Your task to perform on an android device: Clear the shopping cart on bestbuy.com. Search for panasonic triple a on bestbuy.com, select the first entry, and add it to the cart. Image 0: 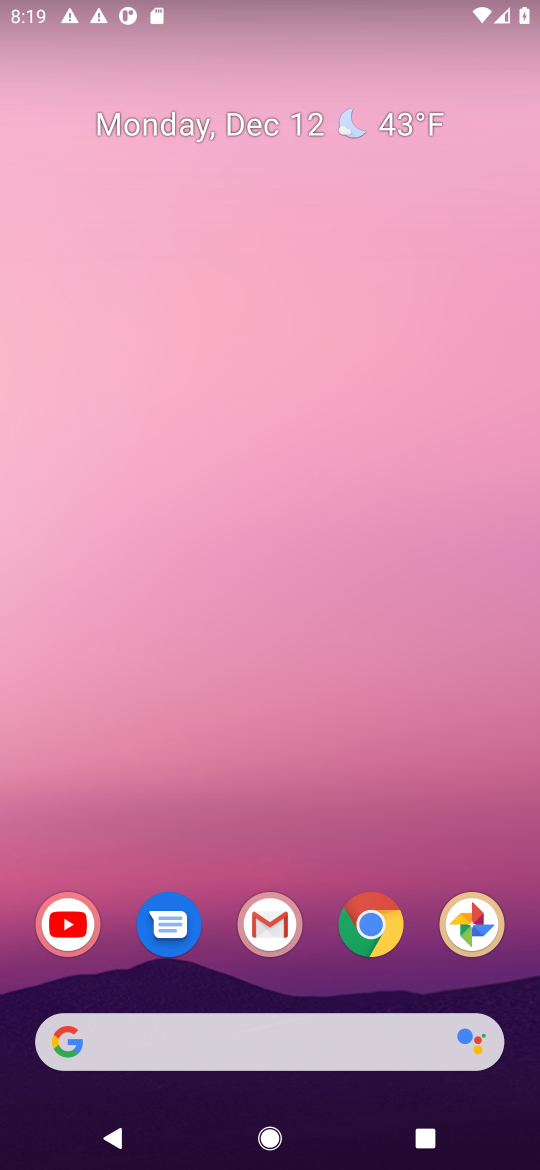
Step 0: drag from (267, 830) to (271, 599)
Your task to perform on an android device: Clear the shopping cart on bestbuy.com. Search for panasonic triple a on bestbuy.com, select the first entry, and add it to the cart. Image 1: 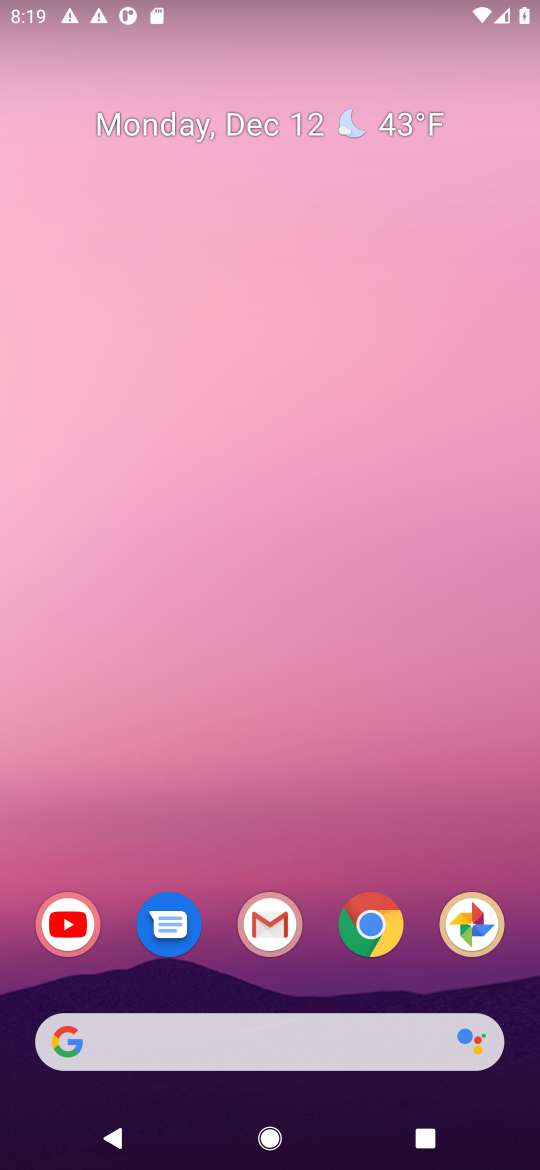
Step 1: click (218, 1028)
Your task to perform on an android device: Clear the shopping cart on bestbuy.com. Search for panasonic triple a on bestbuy.com, select the first entry, and add it to the cart. Image 2: 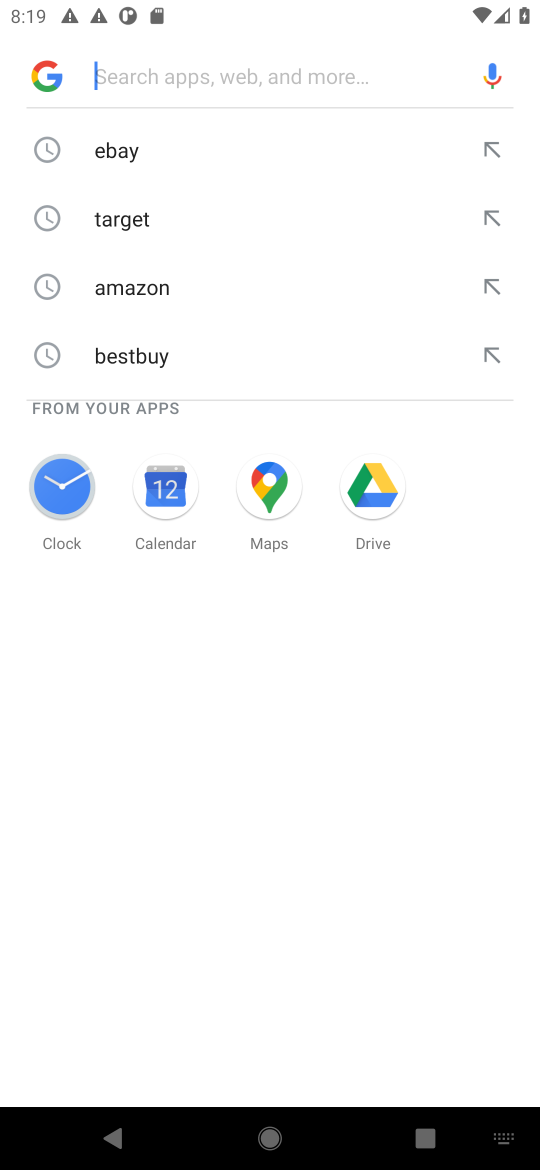
Step 2: click (192, 360)
Your task to perform on an android device: Clear the shopping cart on bestbuy.com. Search for panasonic triple a on bestbuy.com, select the first entry, and add it to the cart. Image 3: 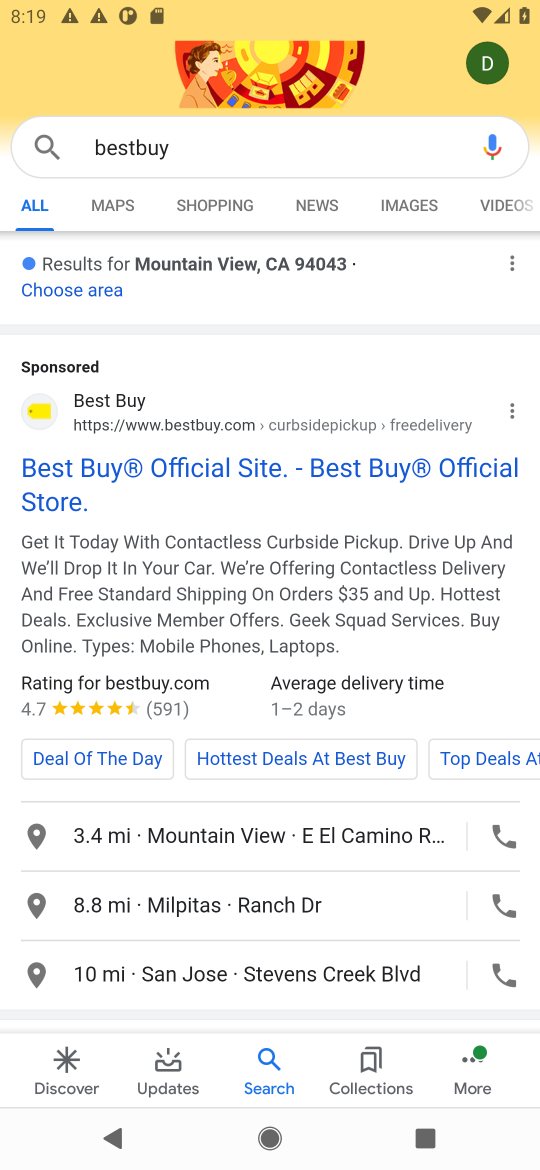
Step 3: click (142, 467)
Your task to perform on an android device: Clear the shopping cart on bestbuy.com. Search for panasonic triple a on bestbuy.com, select the first entry, and add it to the cart. Image 4: 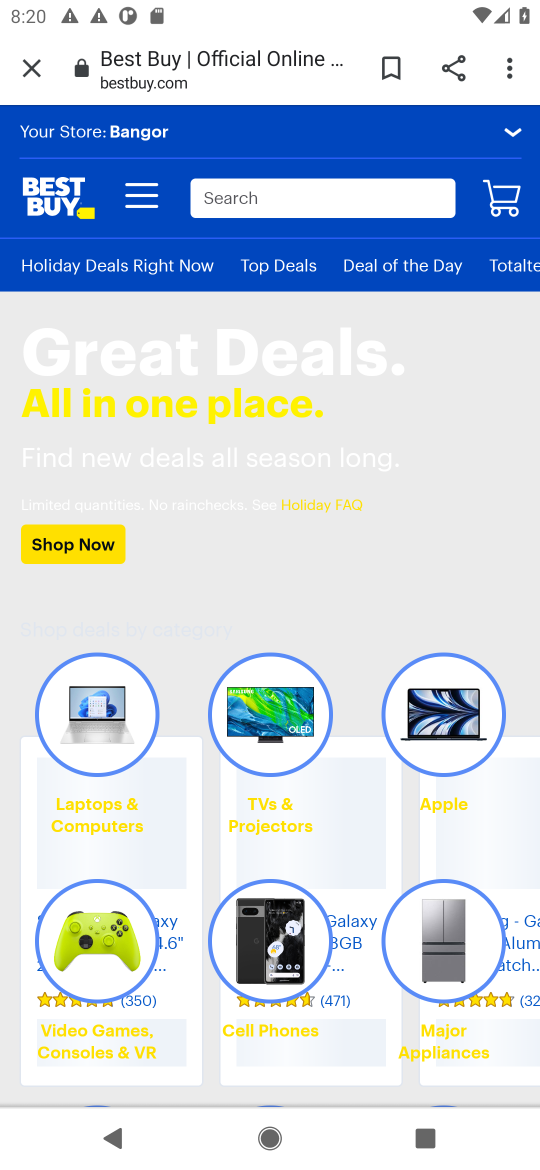
Step 4: click (501, 199)
Your task to perform on an android device: Clear the shopping cart on bestbuy.com. Search for panasonic triple a on bestbuy.com, select the first entry, and add it to the cart. Image 5: 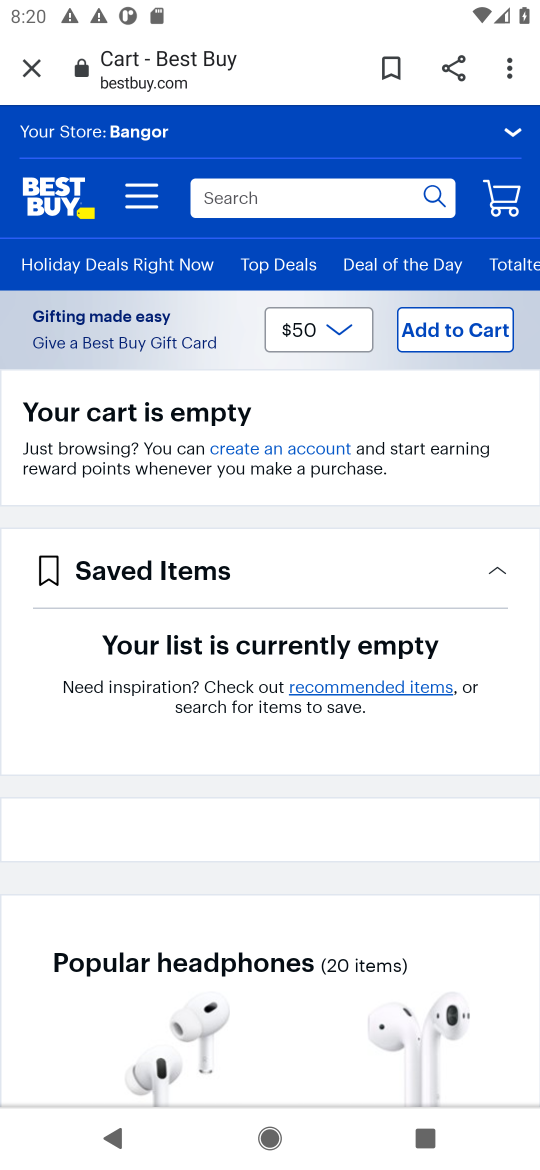
Step 5: click (325, 197)
Your task to perform on an android device: Clear the shopping cart on bestbuy.com. Search for panasonic triple a on bestbuy.com, select the first entry, and add it to the cart. Image 6: 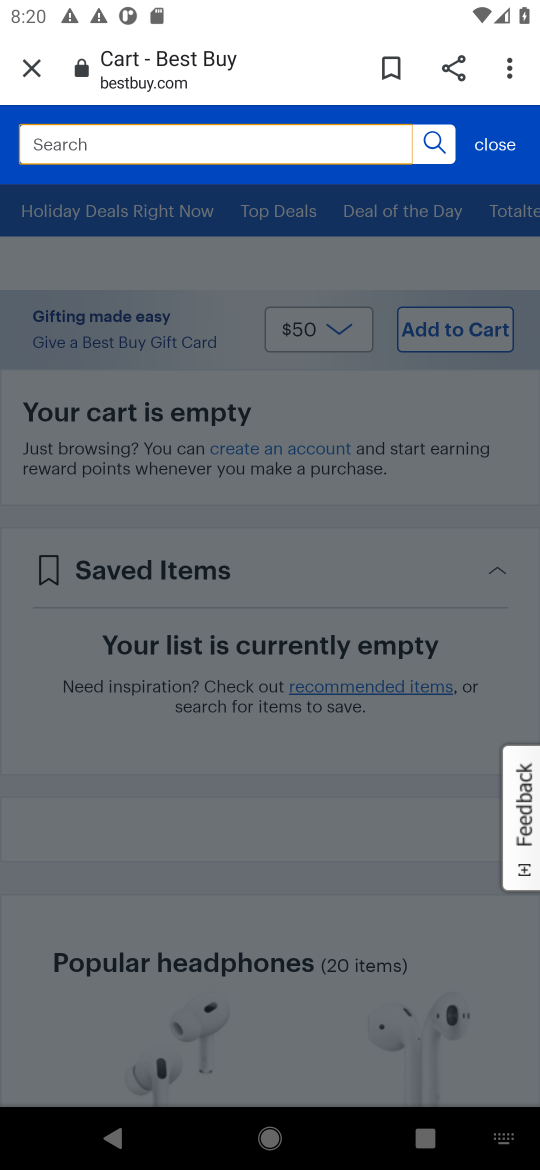
Step 6: type "panasonic triple a"
Your task to perform on an android device: Clear the shopping cart on bestbuy.com. Search for panasonic triple a on bestbuy.com, select the first entry, and add it to the cart. Image 7: 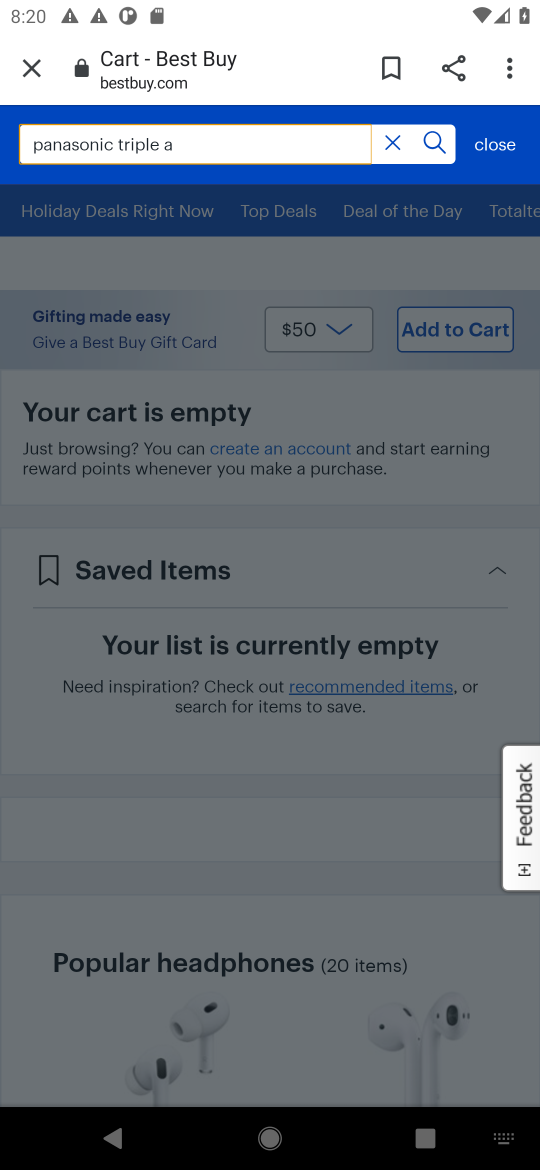
Step 7: click (428, 149)
Your task to perform on an android device: Clear the shopping cart on bestbuy.com. Search for panasonic triple a on bestbuy.com, select the first entry, and add it to the cart. Image 8: 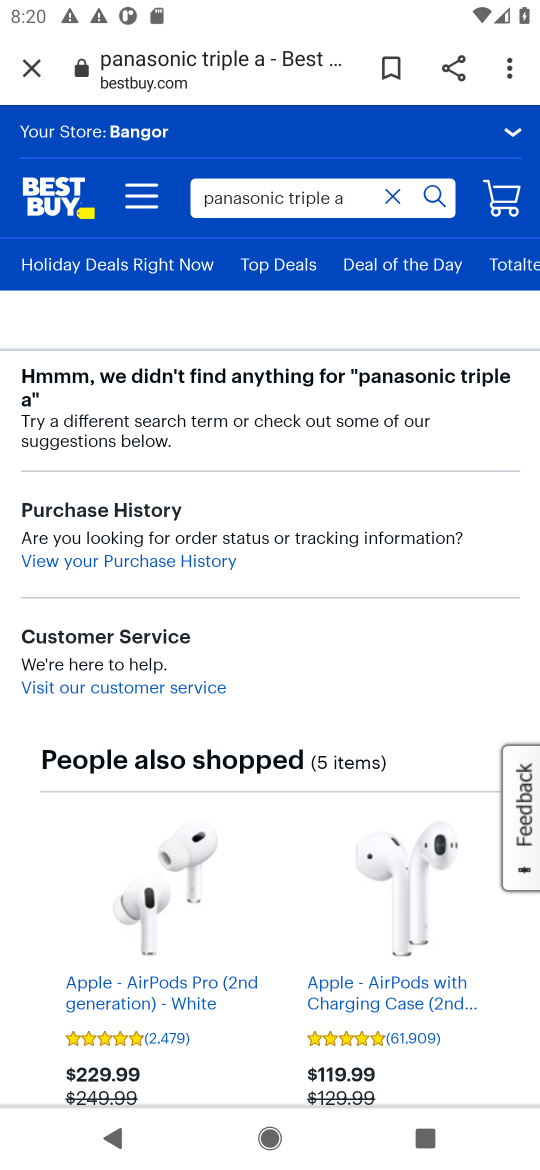
Step 8: click (434, 212)
Your task to perform on an android device: Clear the shopping cart on bestbuy.com. Search for panasonic triple a on bestbuy.com, select the first entry, and add it to the cart. Image 9: 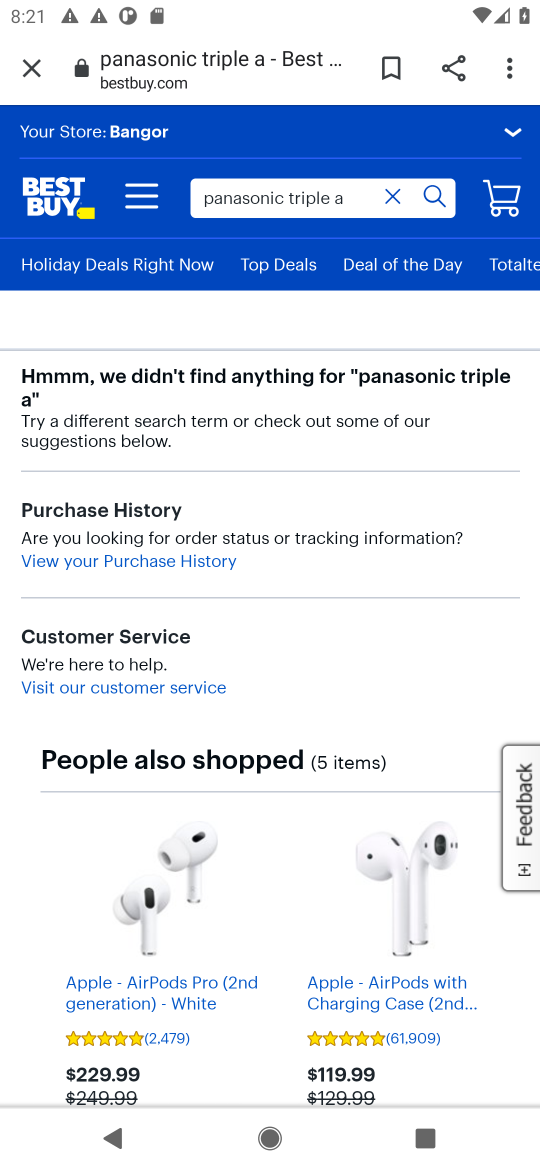
Step 9: task complete